Your task to perform on an android device: Open the stopwatch Image 0: 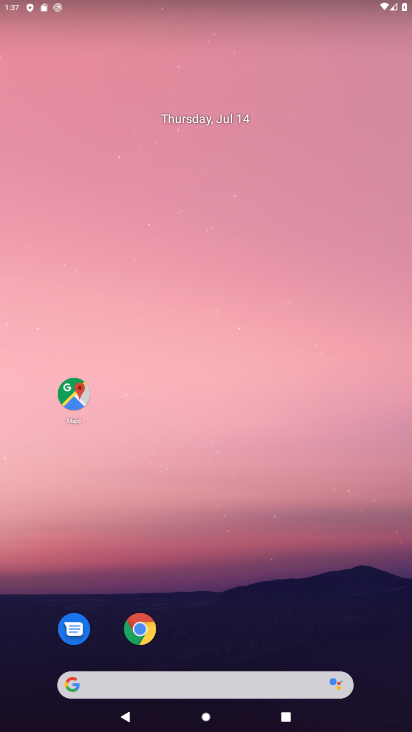
Step 0: drag from (293, 607) to (296, 33)
Your task to perform on an android device: Open the stopwatch Image 1: 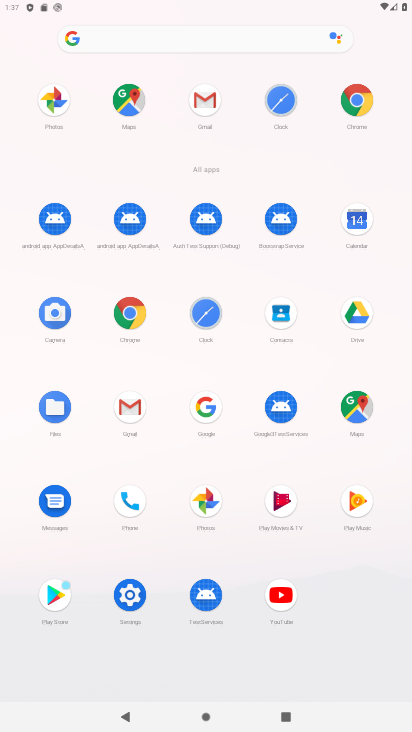
Step 1: click (204, 315)
Your task to perform on an android device: Open the stopwatch Image 2: 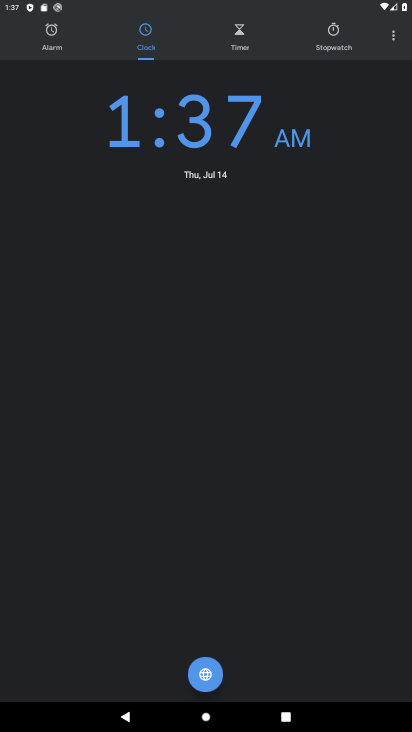
Step 2: click (327, 35)
Your task to perform on an android device: Open the stopwatch Image 3: 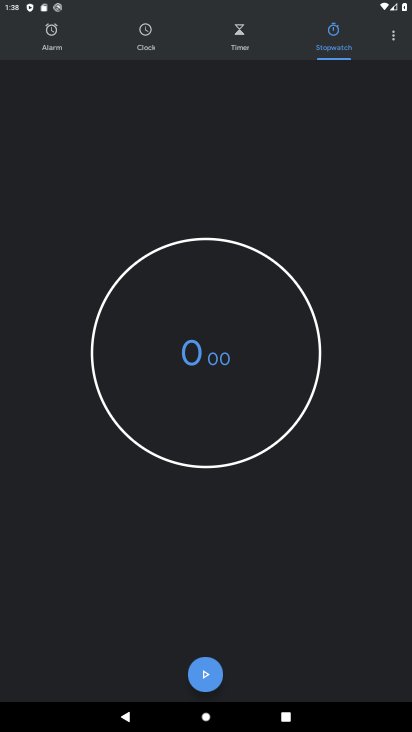
Step 3: task complete